Your task to perform on an android device: Open the Play Movies app and select the watchlist tab. Image 0: 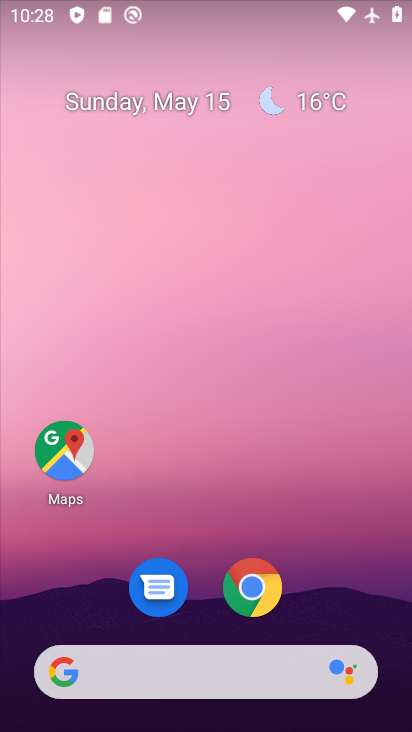
Step 0: drag from (303, 558) to (283, 38)
Your task to perform on an android device: Open the Play Movies app and select the watchlist tab. Image 1: 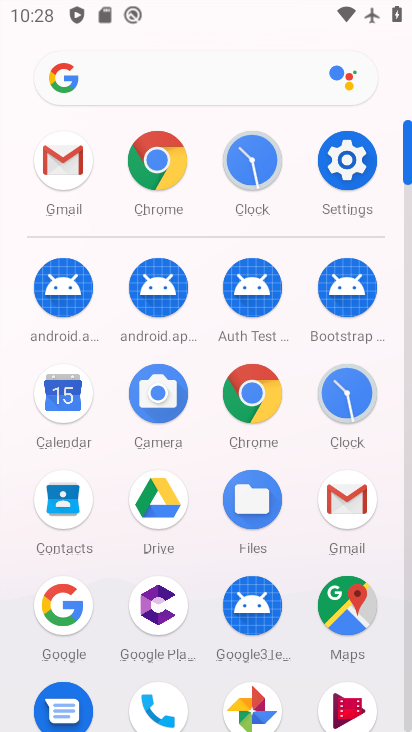
Step 1: drag from (14, 624) to (23, 308)
Your task to perform on an android device: Open the Play Movies app and select the watchlist tab. Image 2: 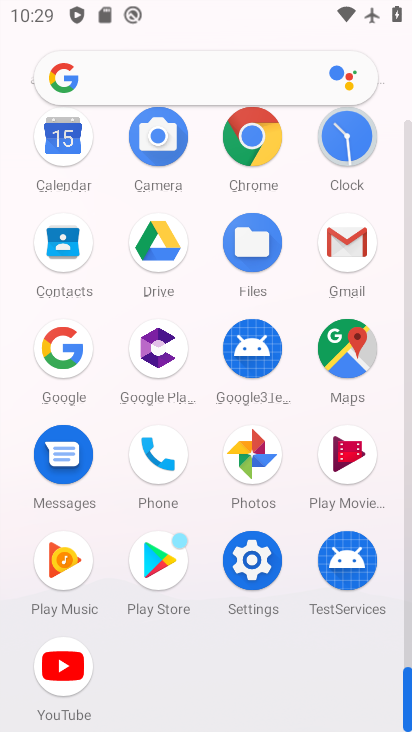
Step 2: click (343, 446)
Your task to perform on an android device: Open the Play Movies app and select the watchlist tab. Image 3: 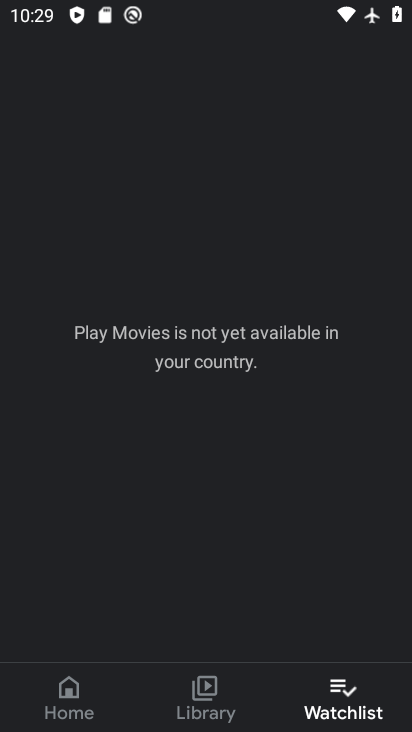
Step 3: task complete